Your task to perform on an android device: toggle sleep mode Image 0: 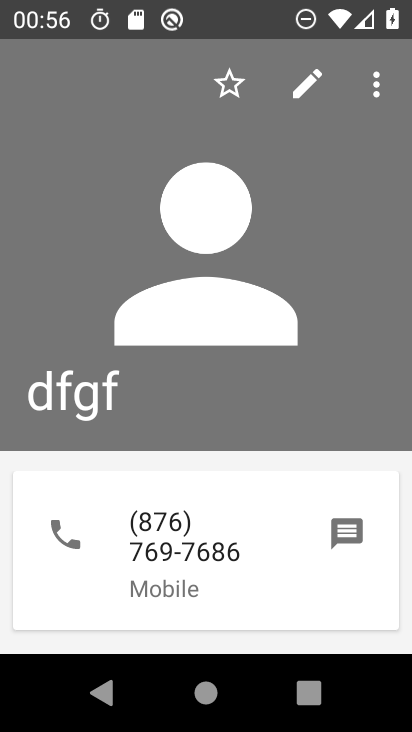
Step 0: press home button
Your task to perform on an android device: toggle sleep mode Image 1: 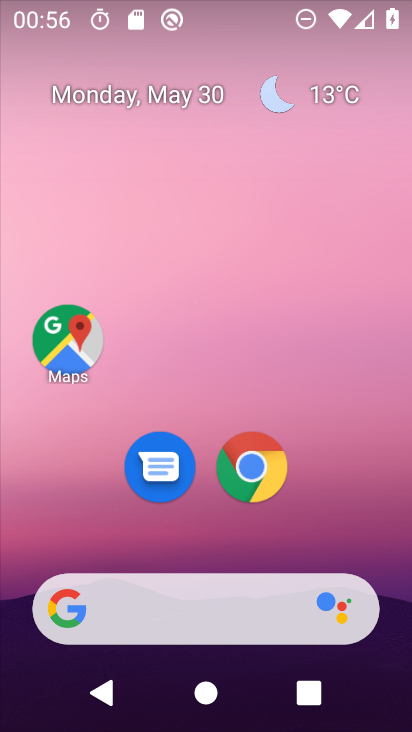
Step 1: drag from (235, 545) to (219, 170)
Your task to perform on an android device: toggle sleep mode Image 2: 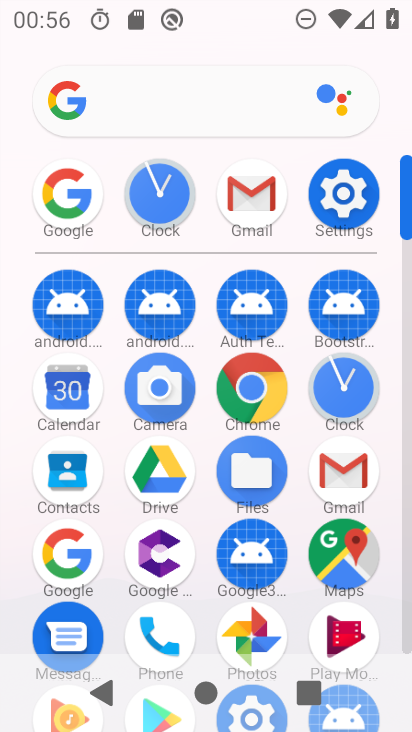
Step 2: click (336, 187)
Your task to perform on an android device: toggle sleep mode Image 3: 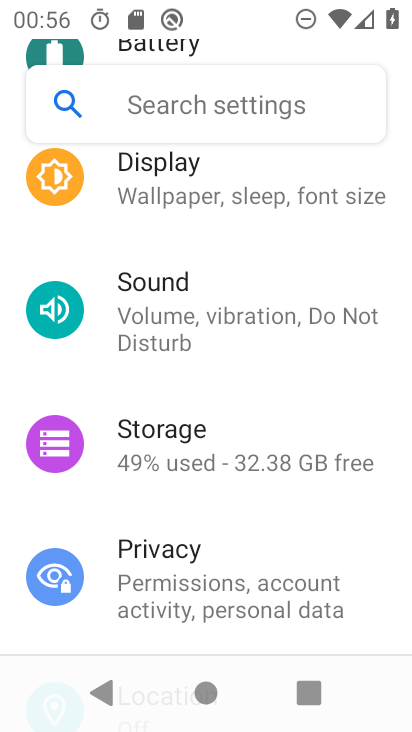
Step 3: drag from (218, 206) to (224, 481)
Your task to perform on an android device: toggle sleep mode Image 4: 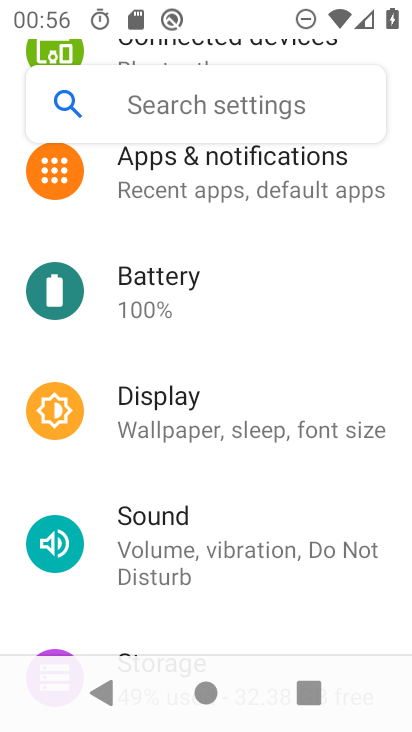
Step 4: drag from (199, 207) to (207, 531)
Your task to perform on an android device: toggle sleep mode Image 5: 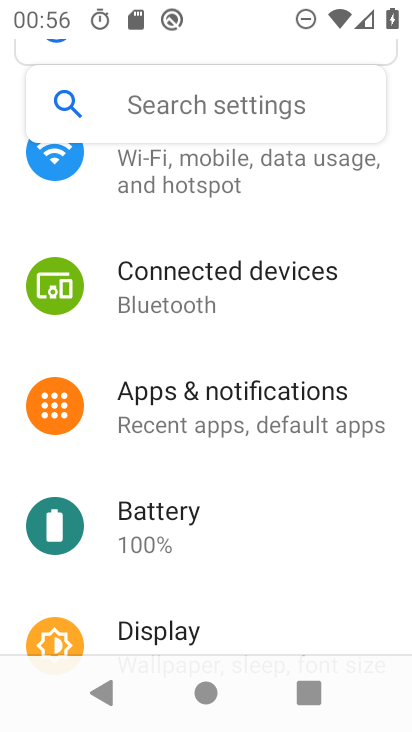
Step 5: drag from (201, 235) to (198, 482)
Your task to perform on an android device: toggle sleep mode Image 6: 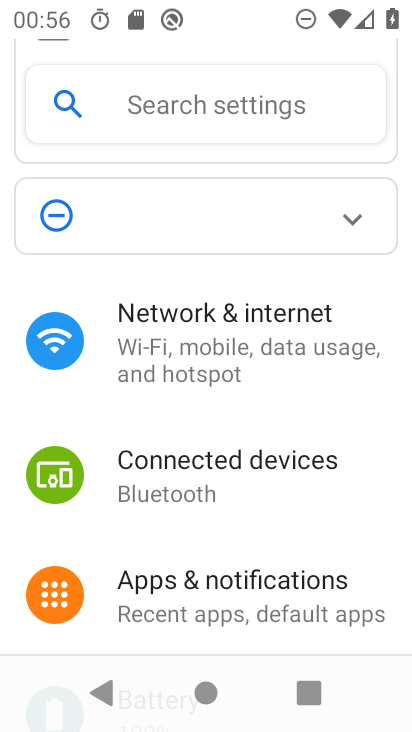
Step 6: drag from (207, 518) to (236, 285)
Your task to perform on an android device: toggle sleep mode Image 7: 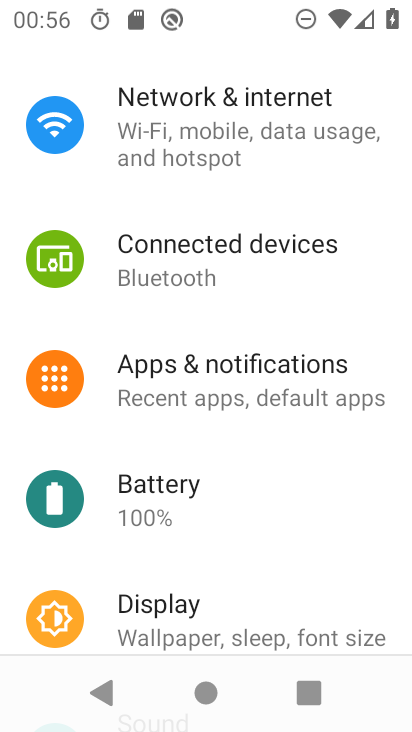
Step 7: click (217, 604)
Your task to perform on an android device: toggle sleep mode Image 8: 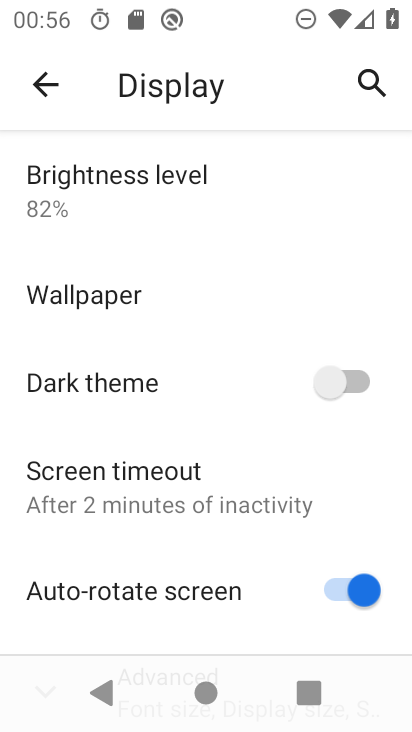
Step 8: drag from (156, 515) to (200, 264)
Your task to perform on an android device: toggle sleep mode Image 9: 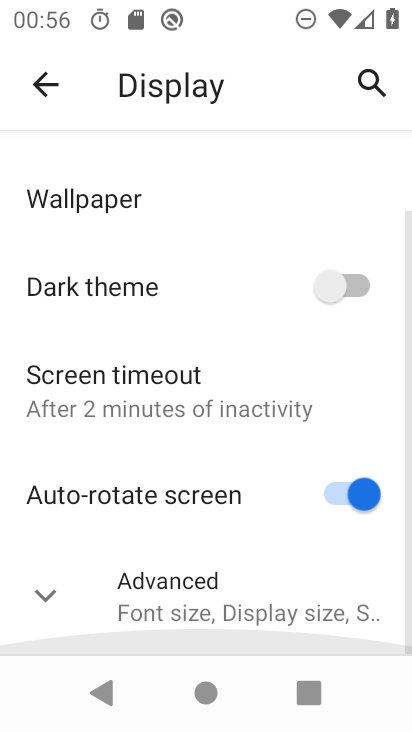
Step 9: drag from (200, 275) to (200, 523)
Your task to perform on an android device: toggle sleep mode Image 10: 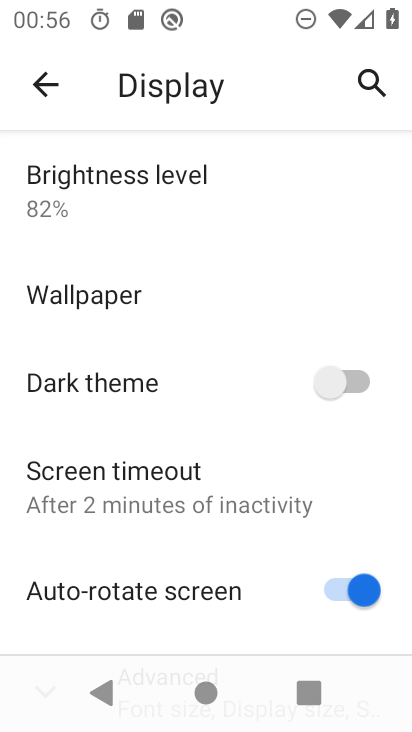
Step 10: click (160, 512)
Your task to perform on an android device: toggle sleep mode Image 11: 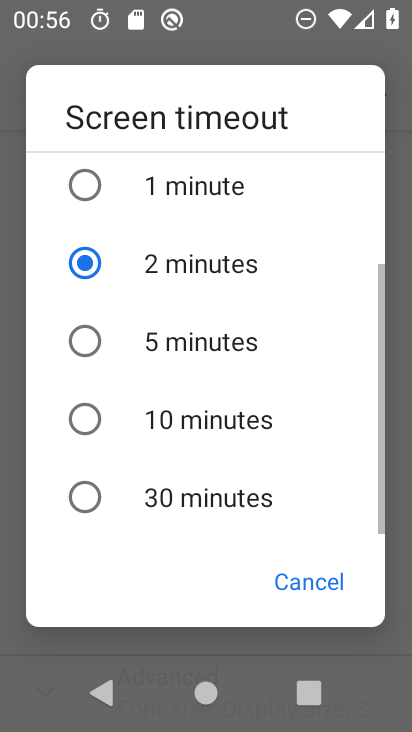
Step 11: click (158, 417)
Your task to perform on an android device: toggle sleep mode Image 12: 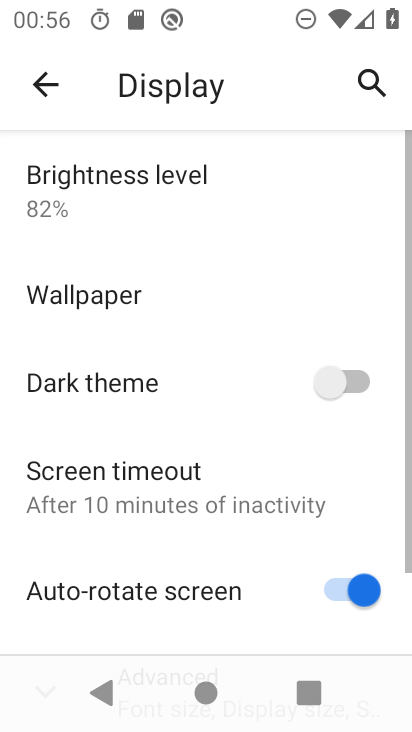
Step 12: task complete